Your task to perform on an android device: Go to Wikipedia Image 0: 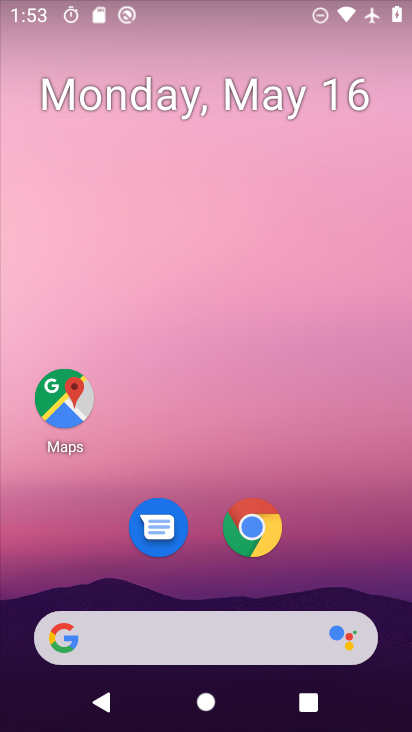
Step 0: click (266, 524)
Your task to perform on an android device: Go to Wikipedia Image 1: 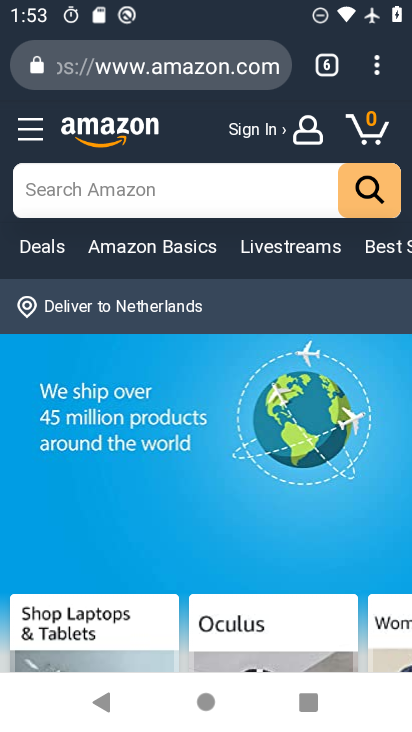
Step 1: drag from (375, 79) to (253, 143)
Your task to perform on an android device: Go to Wikipedia Image 2: 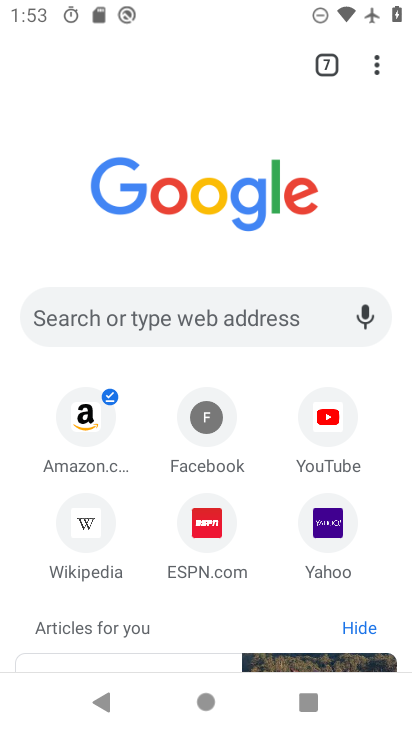
Step 2: click (91, 534)
Your task to perform on an android device: Go to Wikipedia Image 3: 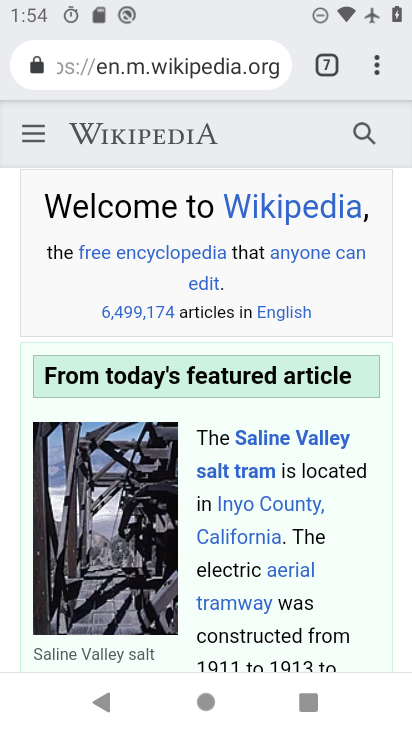
Step 3: task complete